Your task to perform on an android device: read, delete, or share a saved page in the chrome app Image 0: 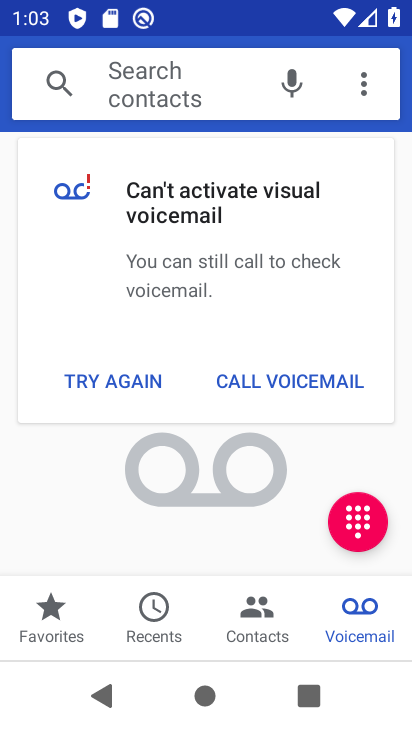
Step 0: press back button
Your task to perform on an android device: read, delete, or share a saved page in the chrome app Image 1: 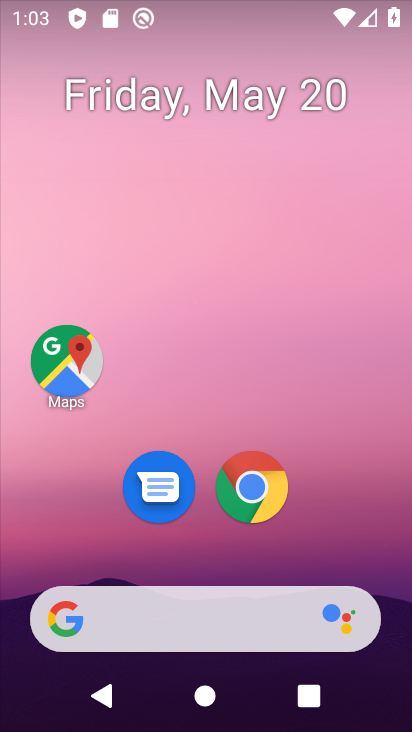
Step 1: drag from (331, 509) to (316, 48)
Your task to perform on an android device: read, delete, or share a saved page in the chrome app Image 2: 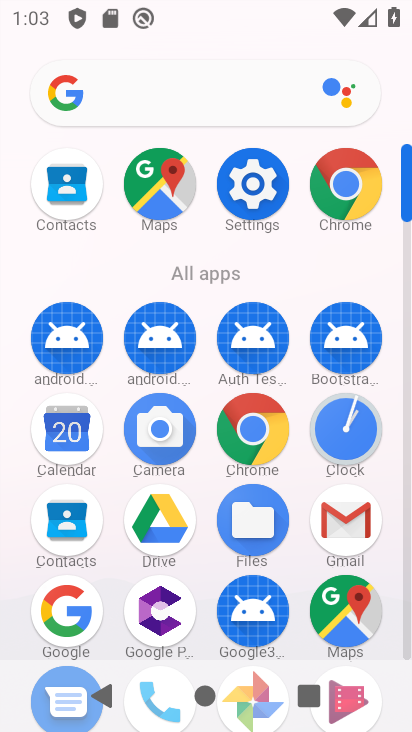
Step 2: drag from (3, 551) to (18, 257)
Your task to perform on an android device: read, delete, or share a saved page in the chrome app Image 3: 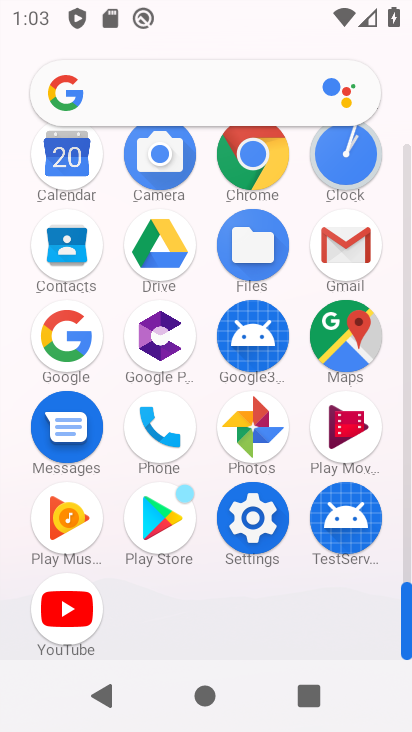
Step 3: click (259, 158)
Your task to perform on an android device: read, delete, or share a saved page in the chrome app Image 4: 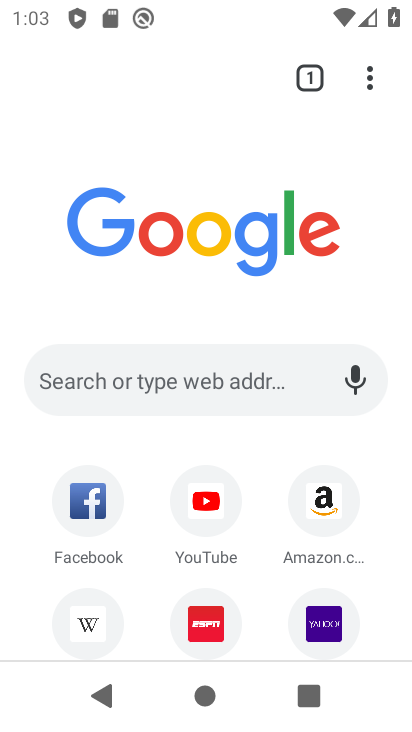
Step 4: task complete